Your task to perform on an android device: turn smart compose on in the gmail app Image 0: 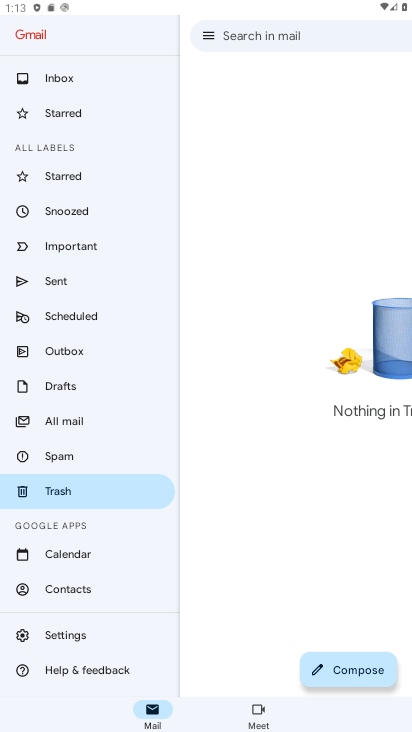
Step 0: task complete